Your task to perform on an android device: find which apps use the phone's location Image 0: 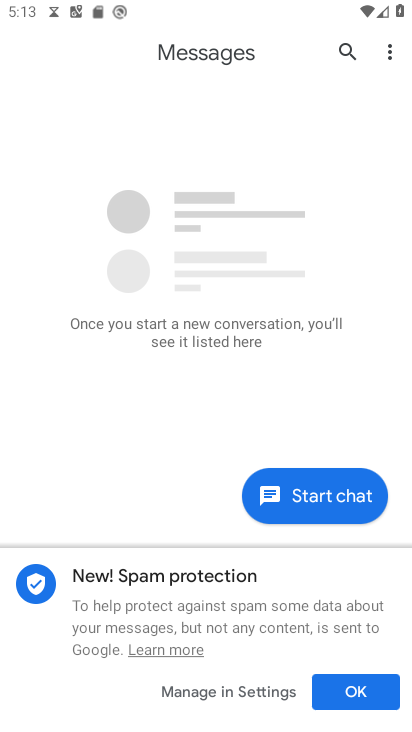
Step 0: press home button
Your task to perform on an android device: find which apps use the phone's location Image 1: 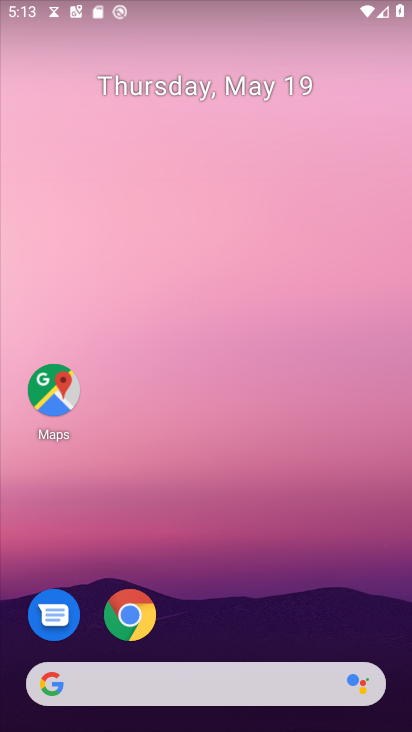
Step 1: drag from (234, 687) to (357, 75)
Your task to perform on an android device: find which apps use the phone's location Image 2: 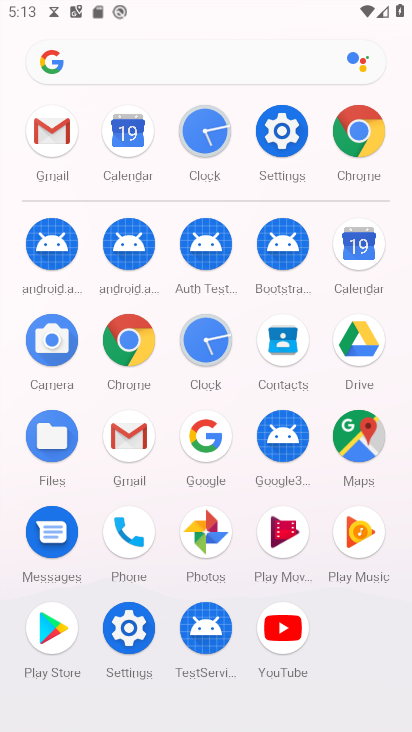
Step 2: click (283, 114)
Your task to perform on an android device: find which apps use the phone's location Image 3: 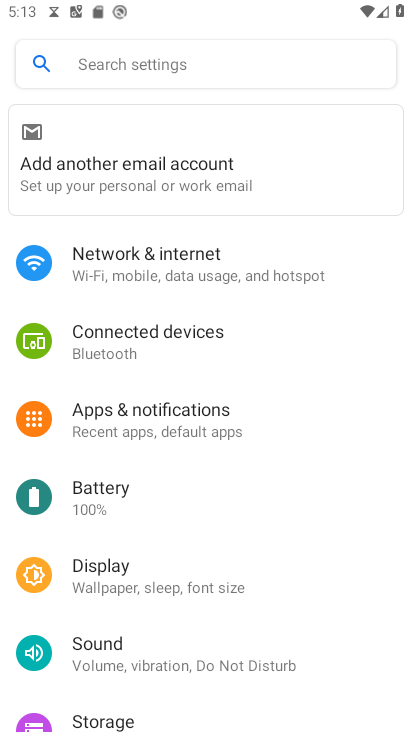
Step 3: drag from (227, 673) to (242, 236)
Your task to perform on an android device: find which apps use the phone's location Image 4: 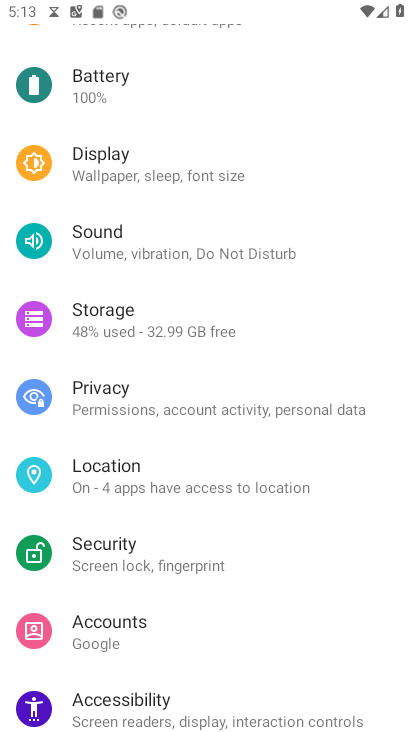
Step 4: click (219, 721)
Your task to perform on an android device: find which apps use the phone's location Image 5: 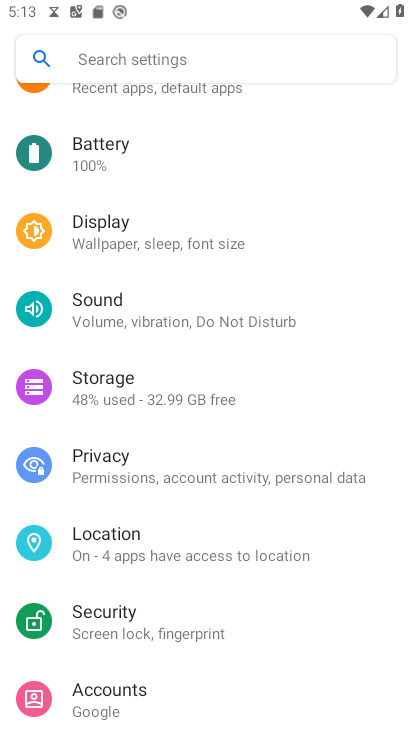
Step 5: click (140, 548)
Your task to perform on an android device: find which apps use the phone's location Image 6: 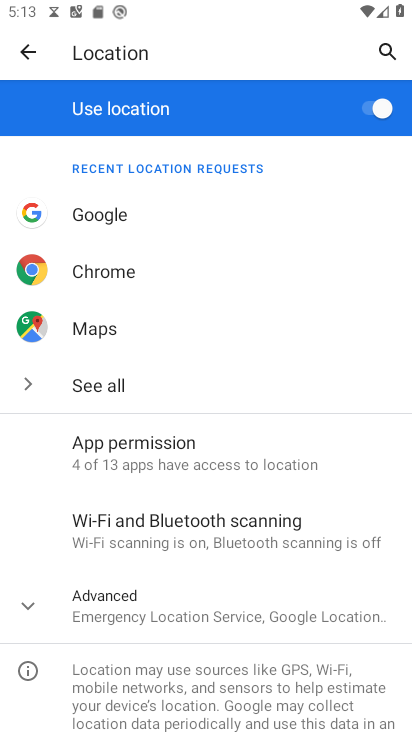
Step 6: task complete